Your task to perform on an android device: Open settings Image 0: 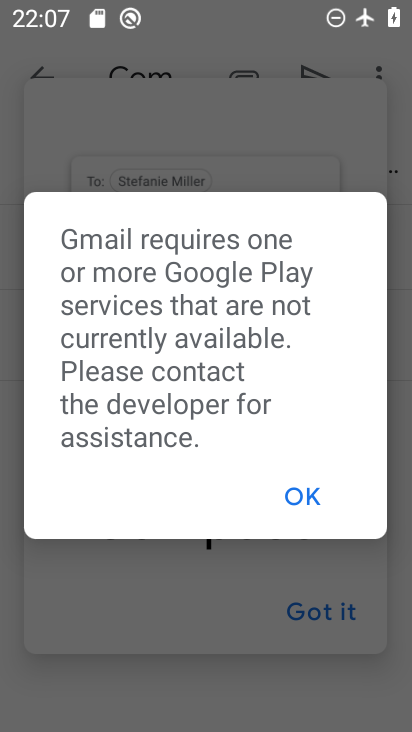
Step 0: press home button
Your task to perform on an android device: Open settings Image 1: 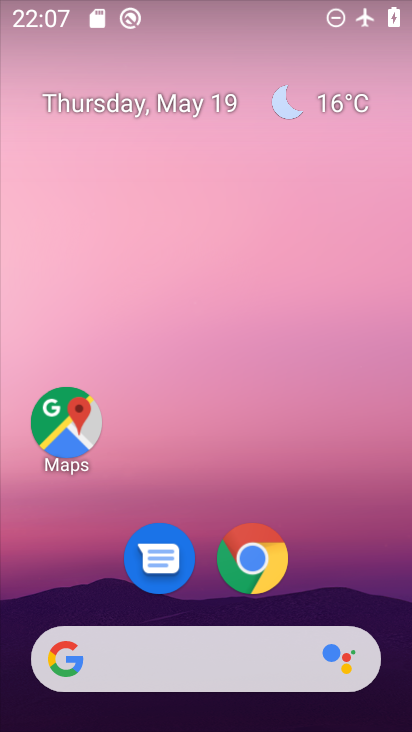
Step 1: drag from (241, 713) to (242, 178)
Your task to perform on an android device: Open settings Image 2: 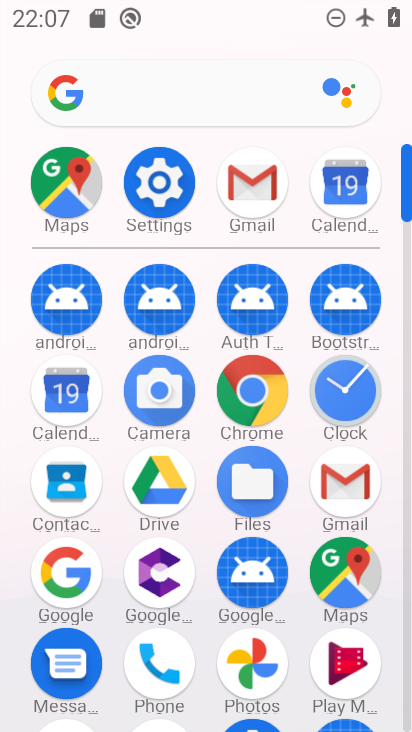
Step 2: click (169, 177)
Your task to perform on an android device: Open settings Image 3: 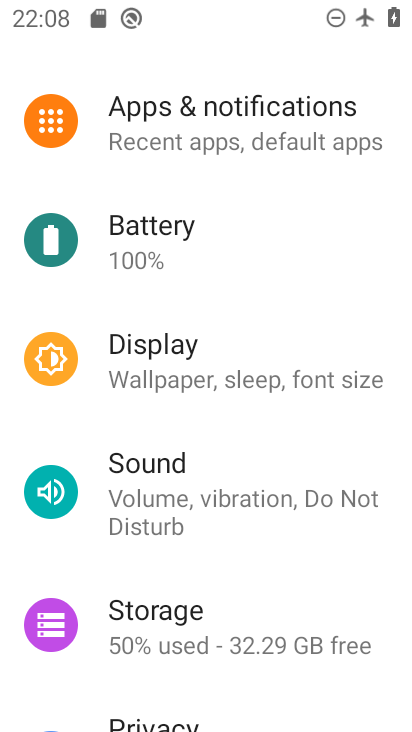
Step 3: task complete